Your task to perform on an android device: open a bookmark in the chrome app Image 0: 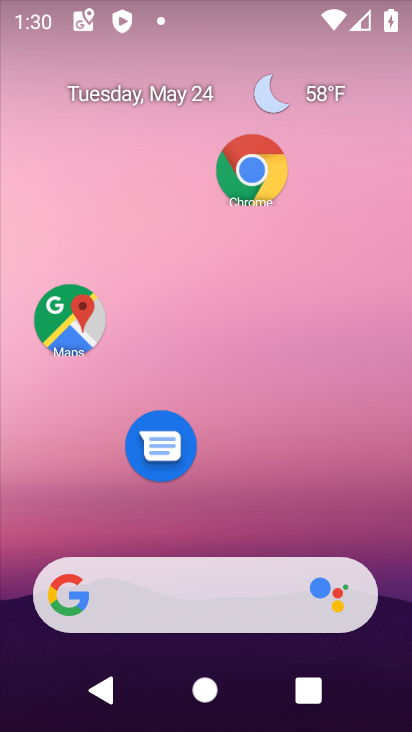
Step 0: drag from (326, 552) to (326, 176)
Your task to perform on an android device: open a bookmark in the chrome app Image 1: 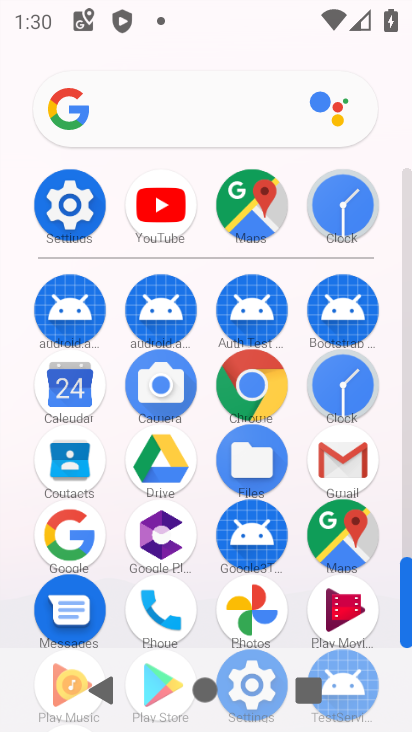
Step 1: click (272, 392)
Your task to perform on an android device: open a bookmark in the chrome app Image 2: 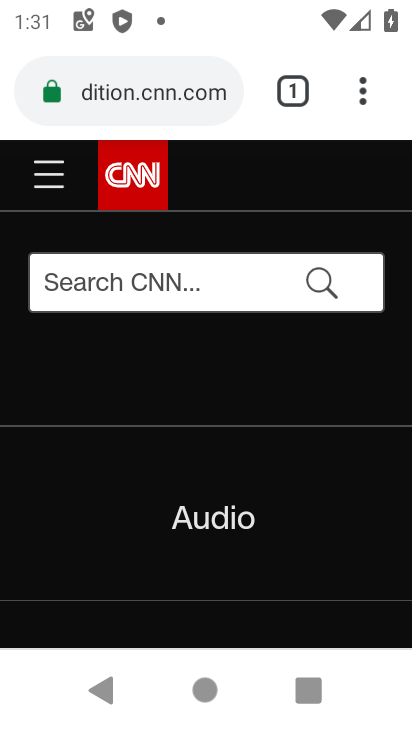
Step 2: click (366, 96)
Your task to perform on an android device: open a bookmark in the chrome app Image 3: 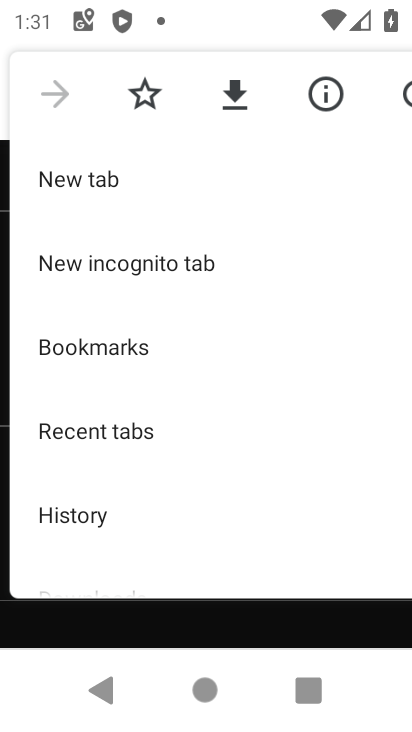
Step 3: click (119, 344)
Your task to perform on an android device: open a bookmark in the chrome app Image 4: 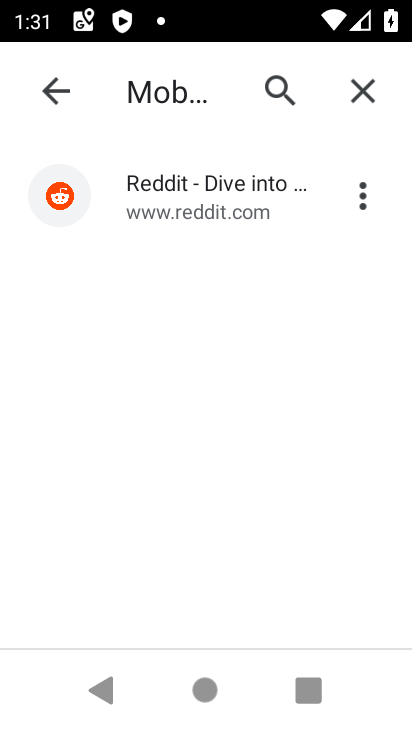
Step 4: click (177, 218)
Your task to perform on an android device: open a bookmark in the chrome app Image 5: 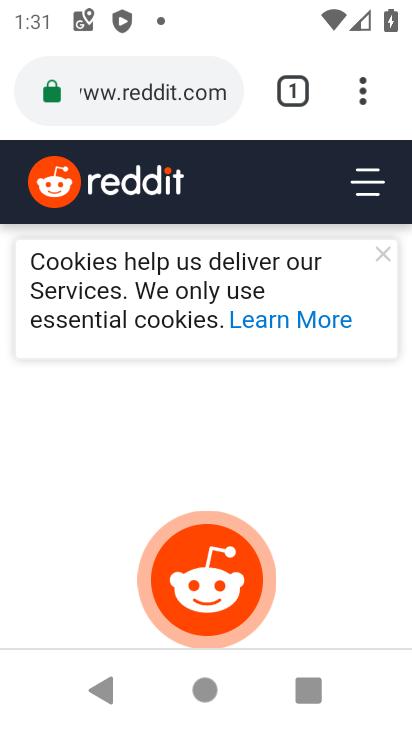
Step 5: task complete